Your task to perform on an android device: Go to sound settings Image 0: 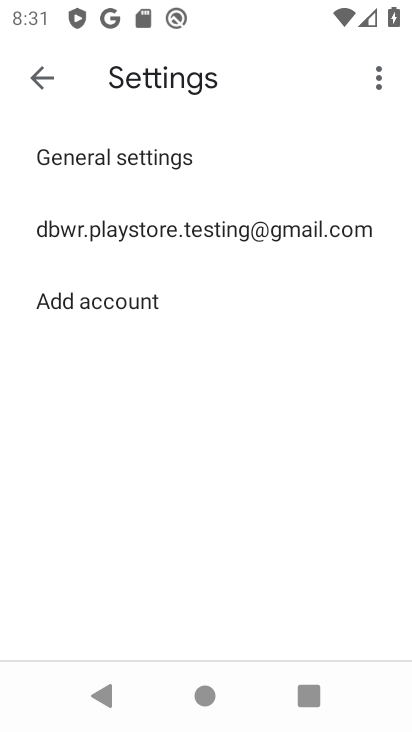
Step 0: press back button
Your task to perform on an android device: Go to sound settings Image 1: 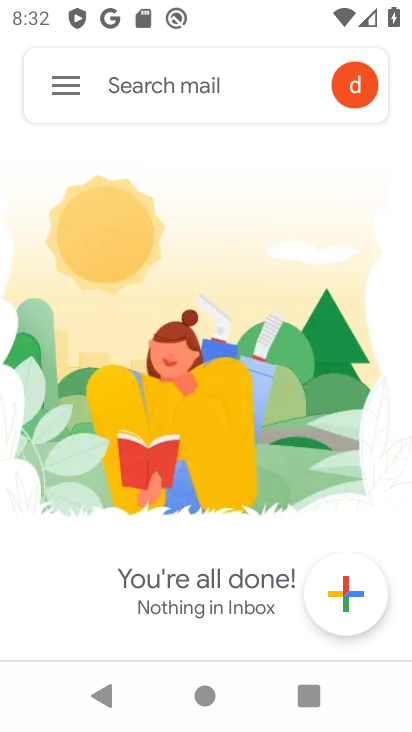
Step 1: press back button
Your task to perform on an android device: Go to sound settings Image 2: 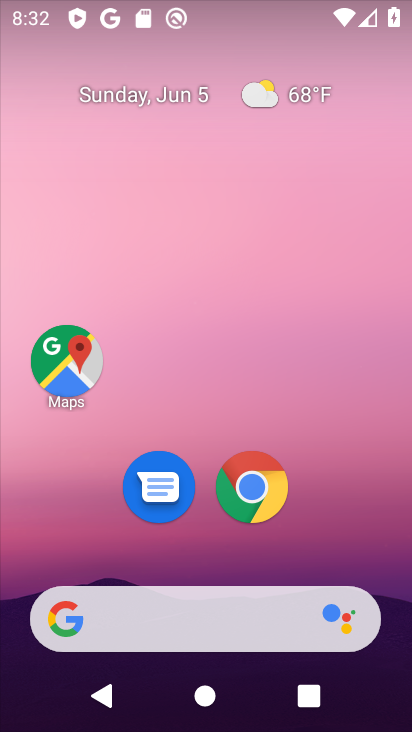
Step 2: drag from (195, 553) to (282, 20)
Your task to perform on an android device: Go to sound settings Image 3: 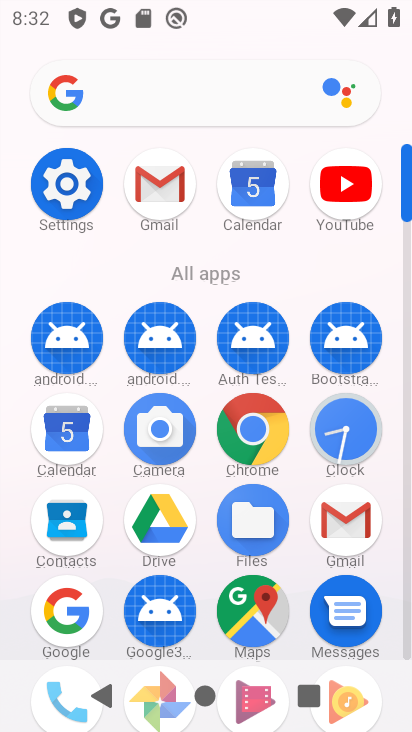
Step 3: click (62, 183)
Your task to perform on an android device: Go to sound settings Image 4: 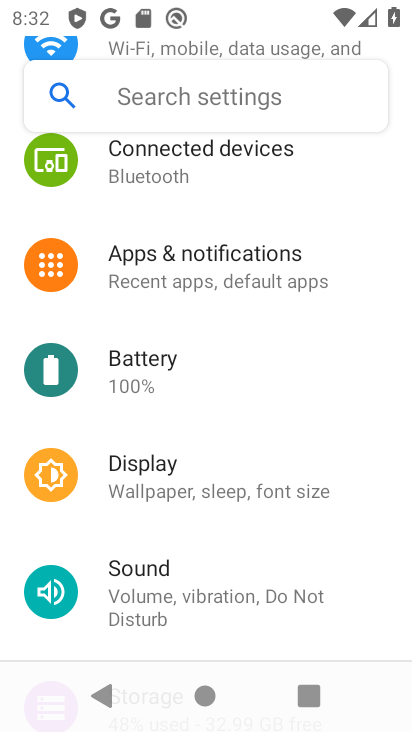
Step 4: drag from (156, 420) to (188, 272)
Your task to perform on an android device: Go to sound settings Image 5: 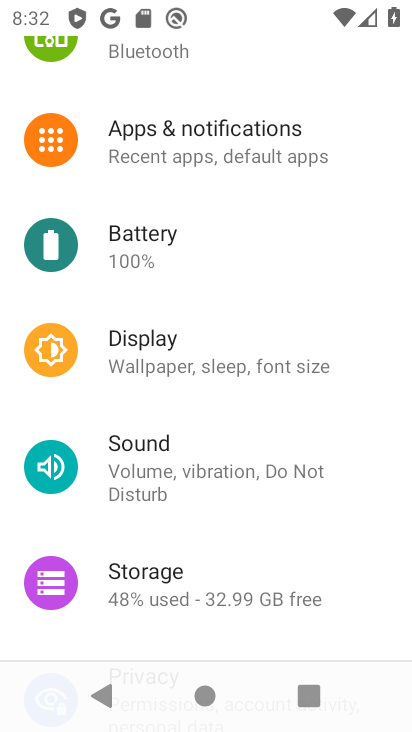
Step 5: click (134, 445)
Your task to perform on an android device: Go to sound settings Image 6: 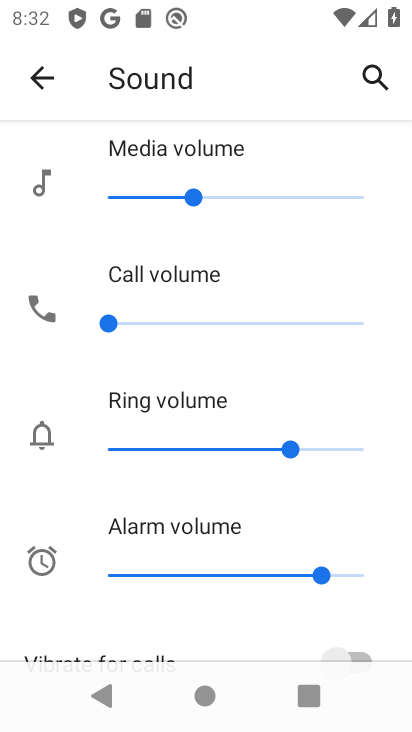
Step 6: task complete